Your task to perform on an android device: Clear the shopping cart on walmart.com. Search for lenovo thinkpad on walmart.com, select the first entry, add it to the cart, then select checkout. Image 0: 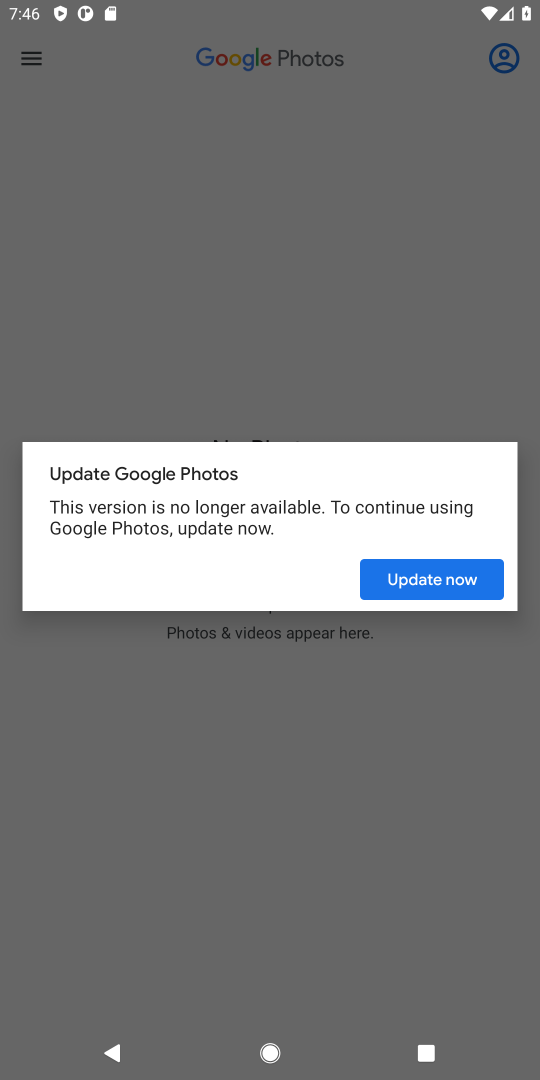
Step 0: press home button
Your task to perform on an android device: Clear the shopping cart on walmart.com. Search for lenovo thinkpad on walmart.com, select the first entry, add it to the cart, then select checkout. Image 1: 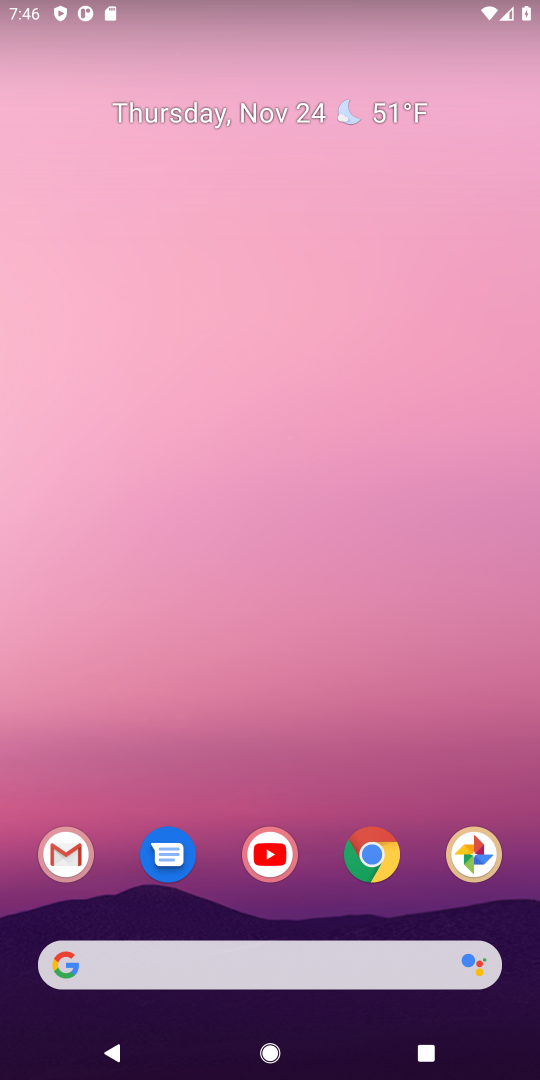
Step 1: click (377, 857)
Your task to perform on an android device: Clear the shopping cart on walmart.com. Search for lenovo thinkpad on walmart.com, select the first entry, add it to the cart, then select checkout. Image 2: 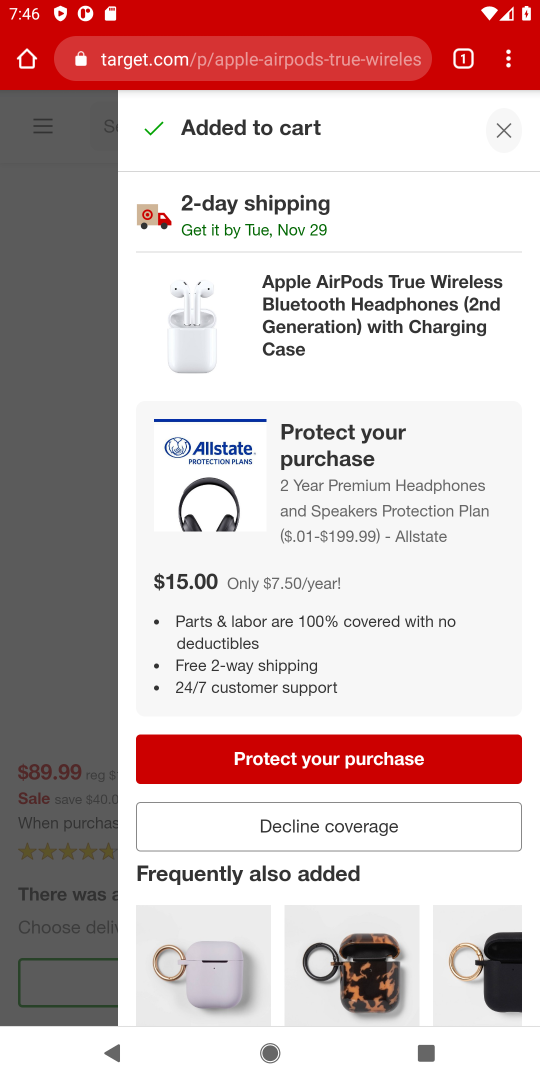
Step 2: click (256, 62)
Your task to perform on an android device: Clear the shopping cart on walmart.com. Search for lenovo thinkpad on walmart.com, select the first entry, add it to the cart, then select checkout. Image 3: 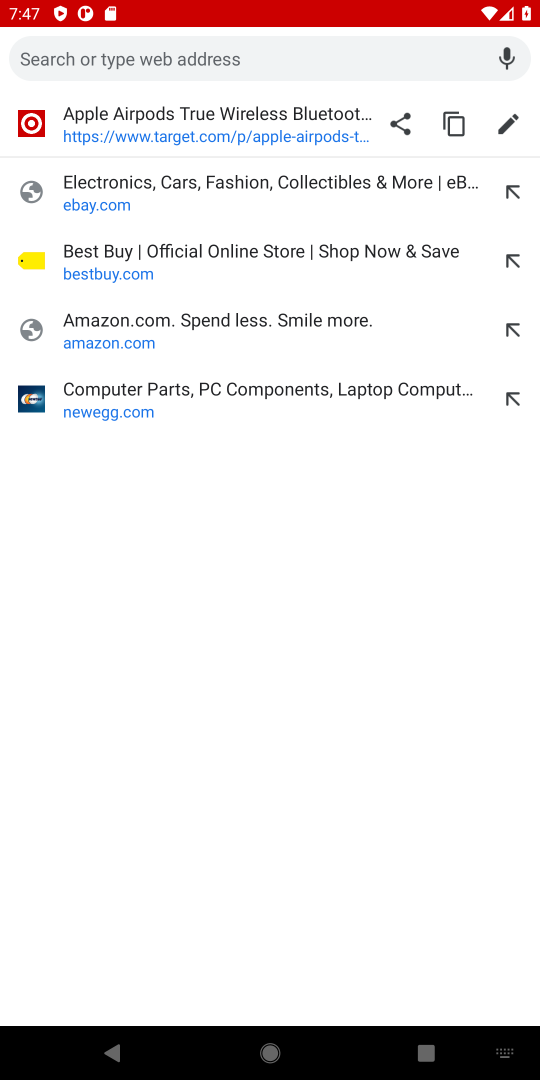
Step 3: type "walmart.com"
Your task to perform on an android device: Clear the shopping cart on walmart.com. Search for lenovo thinkpad on walmart.com, select the first entry, add it to the cart, then select checkout. Image 4: 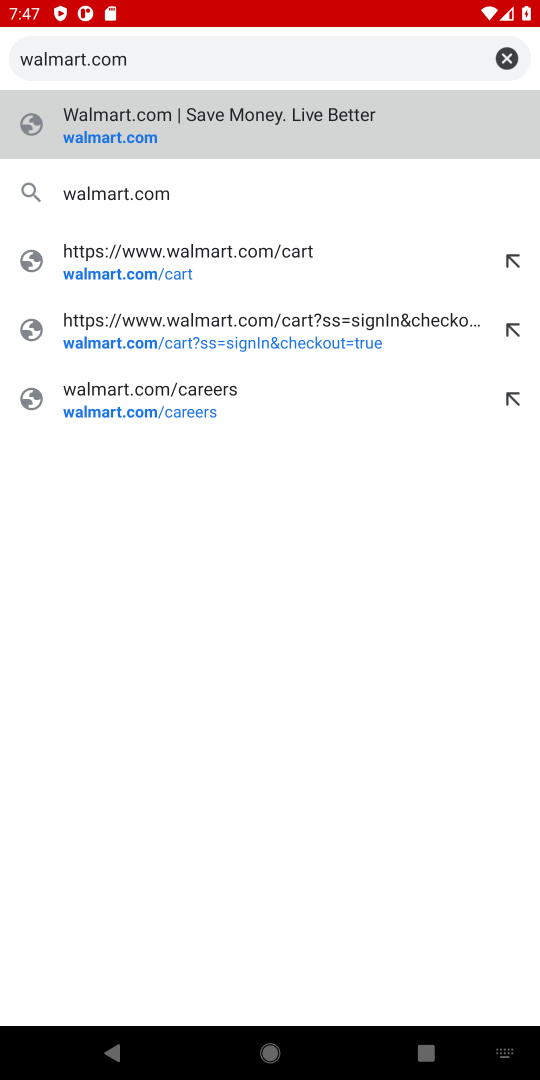
Step 4: click (110, 133)
Your task to perform on an android device: Clear the shopping cart on walmart.com. Search for lenovo thinkpad on walmart.com, select the first entry, add it to the cart, then select checkout. Image 5: 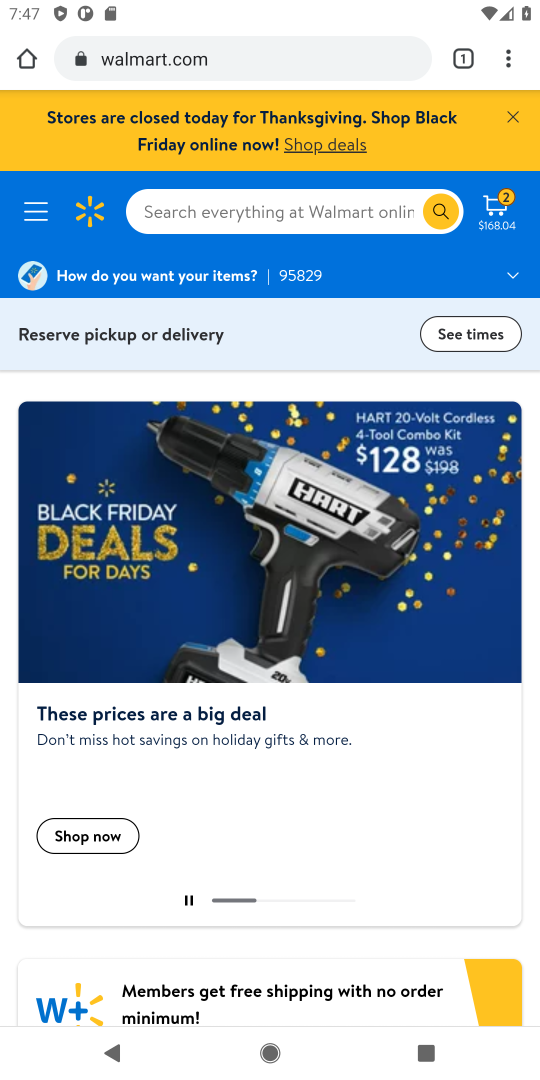
Step 5: click (488, 207)
Your task to perform on an android device: Clear the shopping cart on walmart.com. Search for lenovo thinkpad on walmart.com, select the first entry, add it to the cart, then select checkout. Image 6: 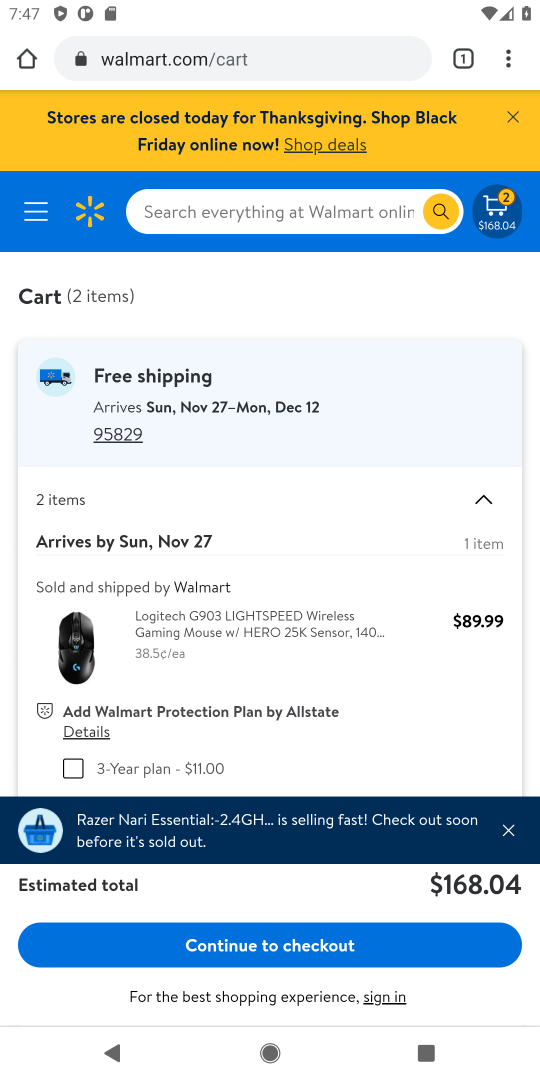
Step 6: drag from (194, 662) to (209, 360)
Your task to perform on an android device: Clear the shopping cart on walmart.com. Search for lenovo thinkpad on walmart.com, select the first entry, add it to the cart, then select checkout. Image 7: 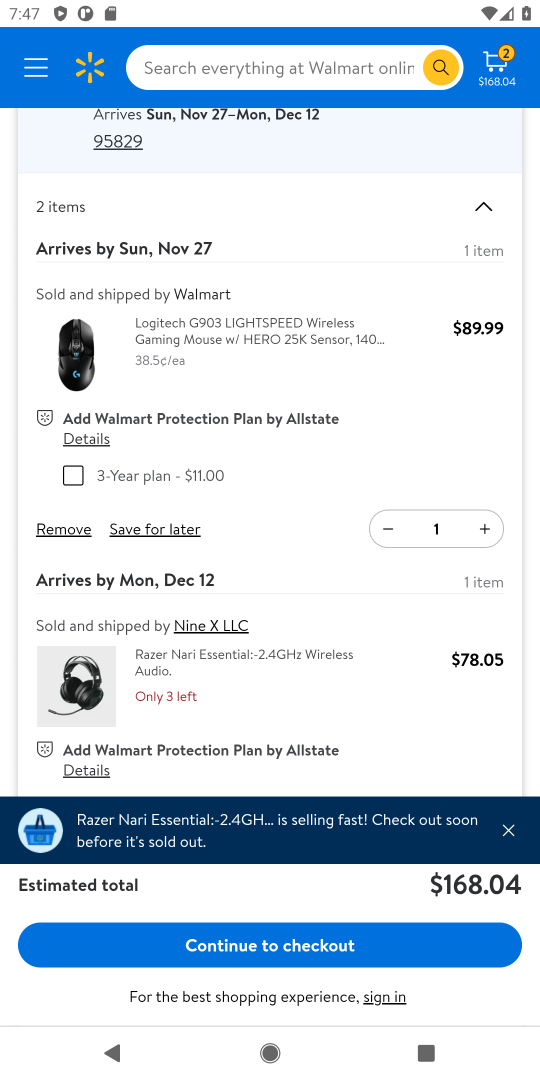
Step 7: click (49, 530)
Your task to perform on an android device: Clear the shopping cart on walmart.com. Search for lenovo thinkpad on walmart.com, select the first entry, add it to the cart, then select checkout. Image 8: 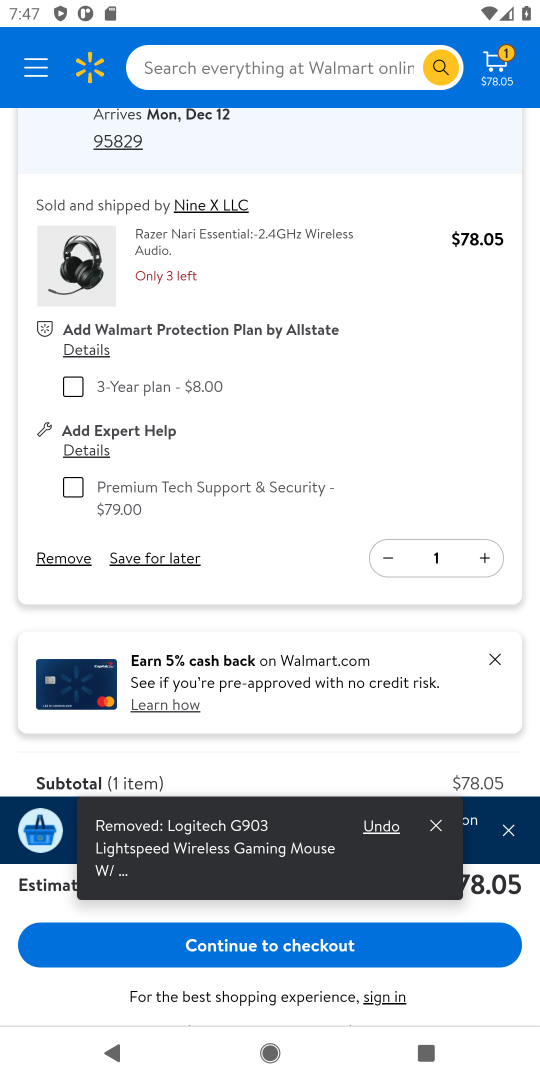
Step 8: click (68, 564)
Your task to perform on an android device: Clear the shopping cart on walmart.com. Search for lenovo thinkpad on walmart.com, select the first entry, add it to the cart, then select checkout. Image 9: 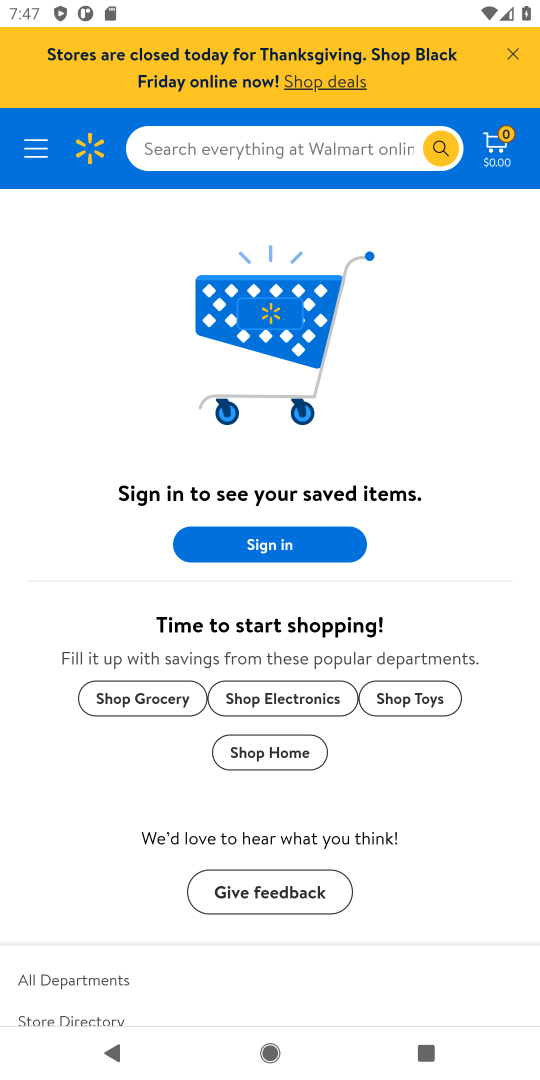
Step 9: click (196, 156)
Your task to perform on an android device: Clear the shopping cart on walmart.com. Search for lenovo thinkpad on walmart.com, select the first entry, add it to the cart, then select checkout. Image 10: 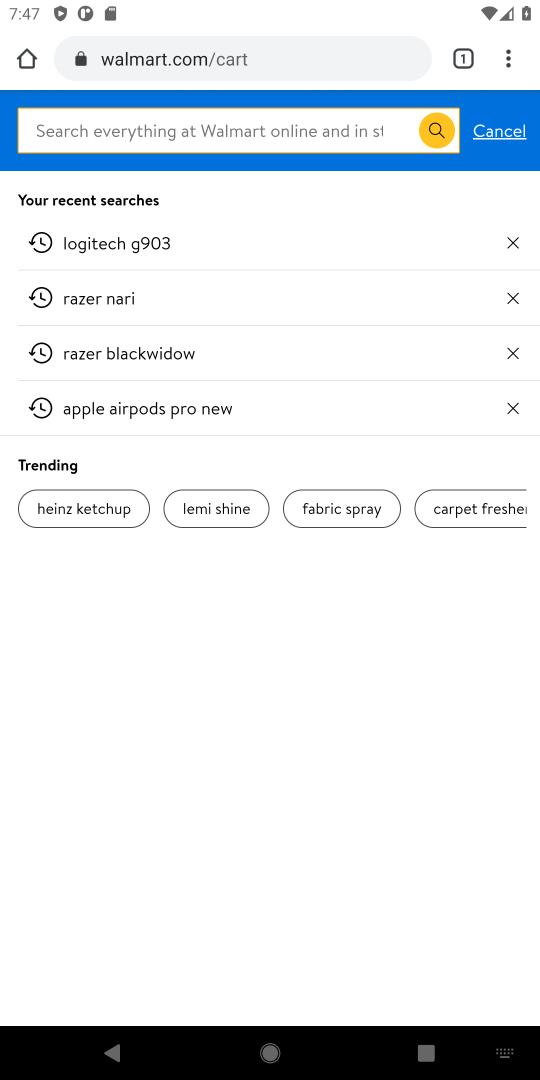
Step 10: type "lenovo thinkpad"
Your task to perform on an android device: Clear the shopping cart on walmart.com. Search for lenovo thinkpad on walmart.com, select the first entry, add it to the cart, then select checkout. Image 11: 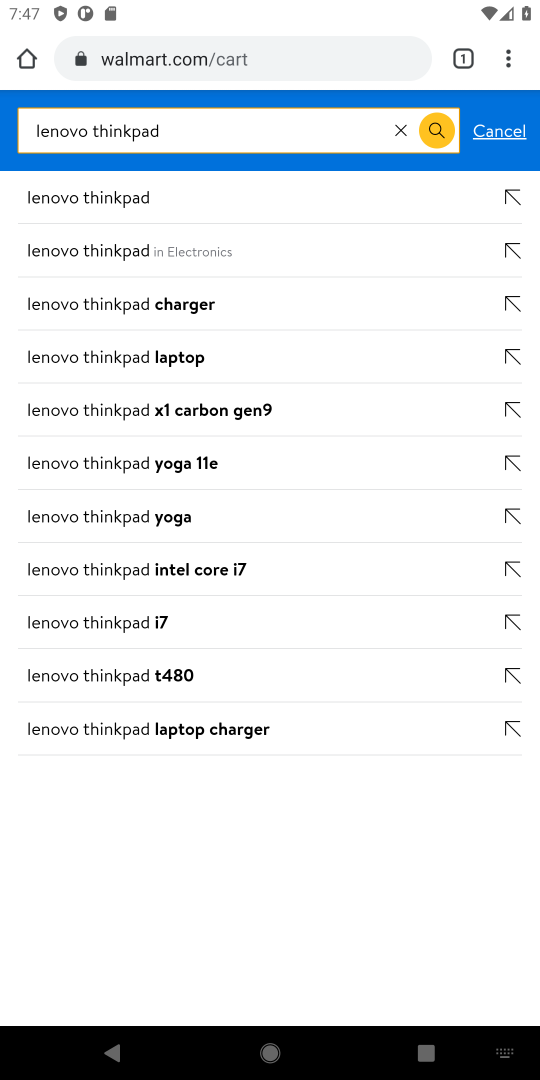
Step 11: click (94, 204)
Your task to perform on an android device: Clear the shopping cart on walmart.com. Search for lenovo thinkpad on walmart.com, select the first entry, add it to the cart, then select checkout. Image 12: 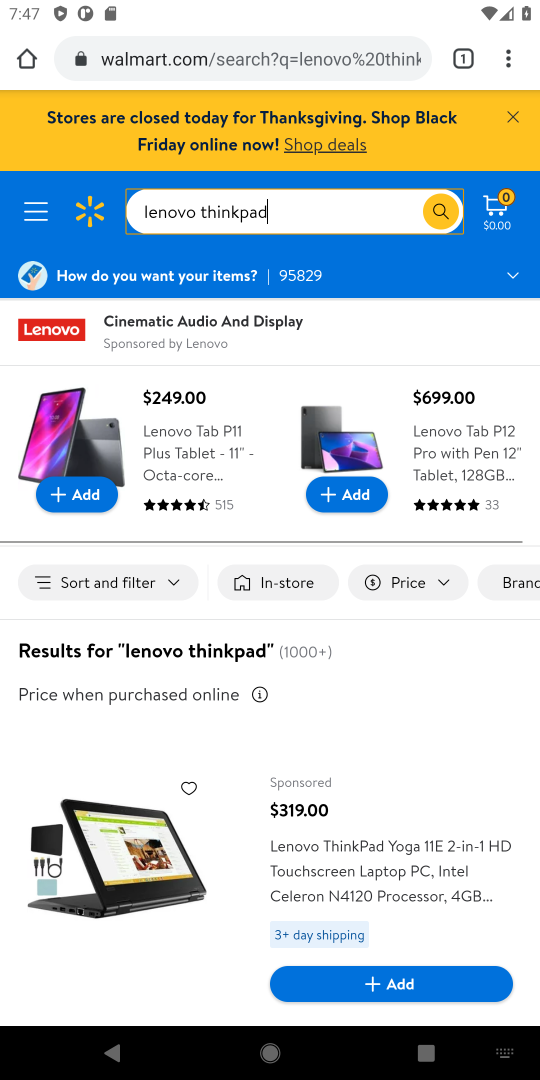
Step 12: drag from (122, 665) to (130, 407)
Your task to perform on an android device: Clear the shopping cart on walmart.com. Search for lenovo thinkpad on walmart.com, select the first entry, add it to the cart, then select checkout. Image 13: 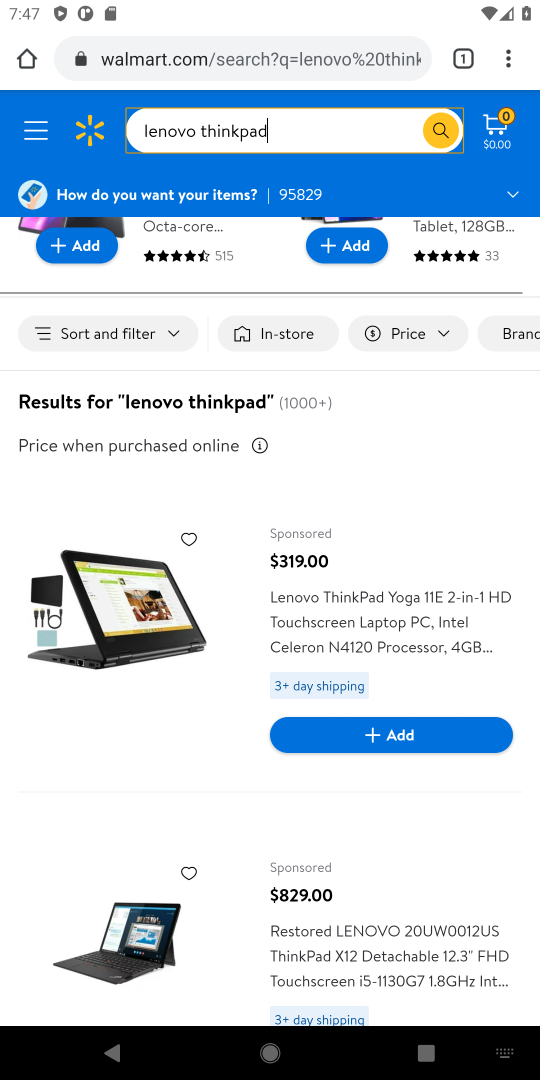
Step 13: click (360, 735)
Your task to perform on an android device: Clear the shopping cart on walmart.com. Search for lenovo thinkpad on walmart.com, select the first entry, add it to the cart, then select checkout. Image 14: 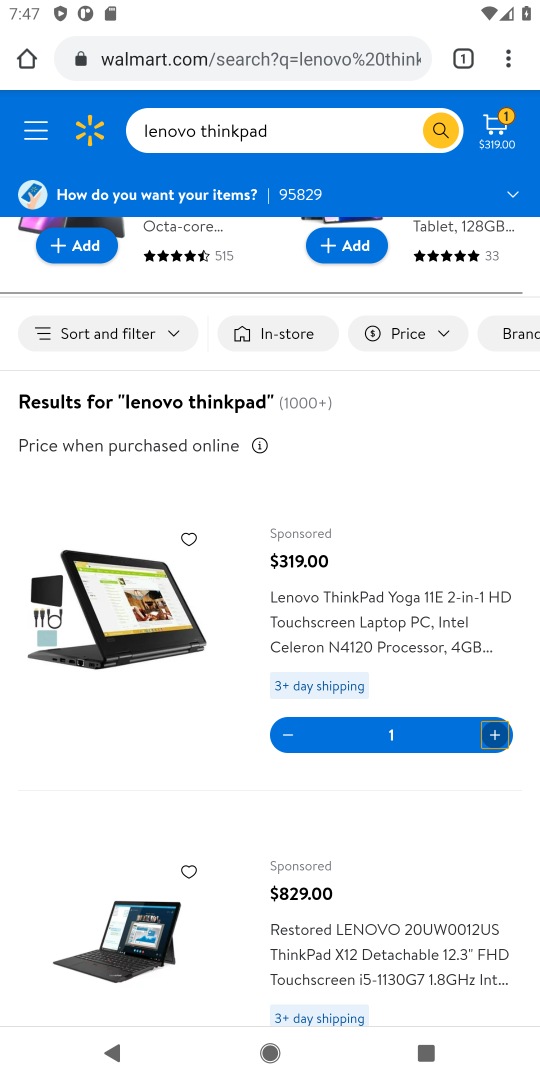
Step 14: click (492, 129)
Your task to perform on an android device: Clear the shopping cart on walmart.com. Search for lenovo thinkpad on walmart.com, select the first entry, add it to the cart, then select checkout. Image 15: 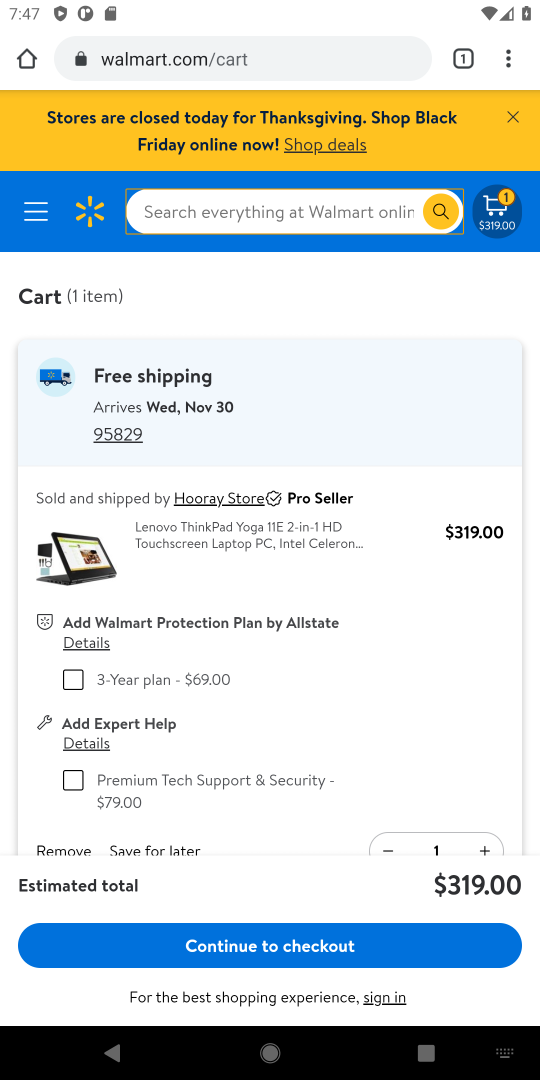
Step 15: click (262, 947)
Your task to perform on an android device: Clear the shopping cart on walmart.com. Search for lenovo thinkpad on walmart.com, select the first entry, add it to the cart, then select checkout. Image 16: 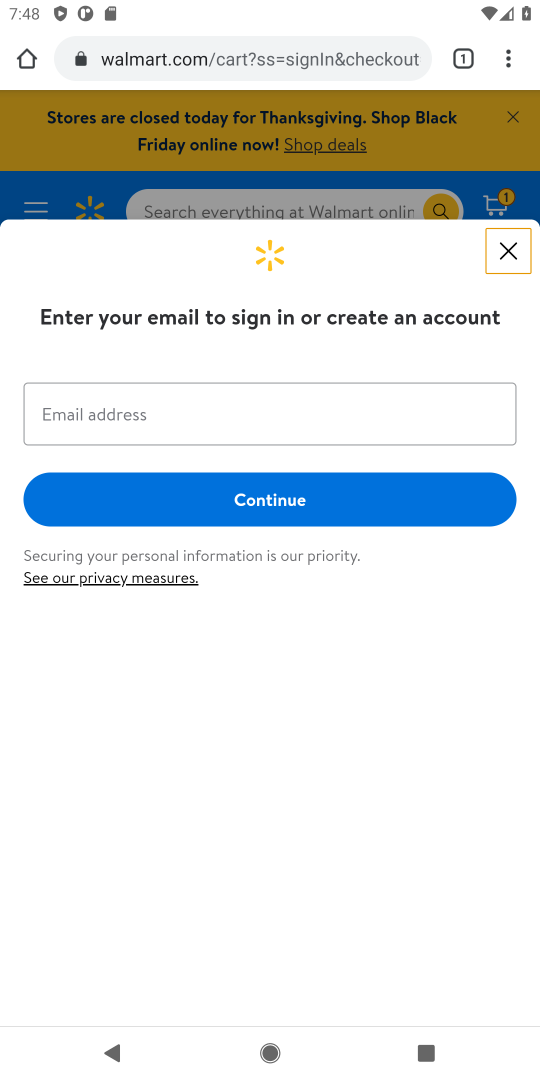
Step 16: task complete